Your task to perform on an android device: Open wifi settings Image 0: 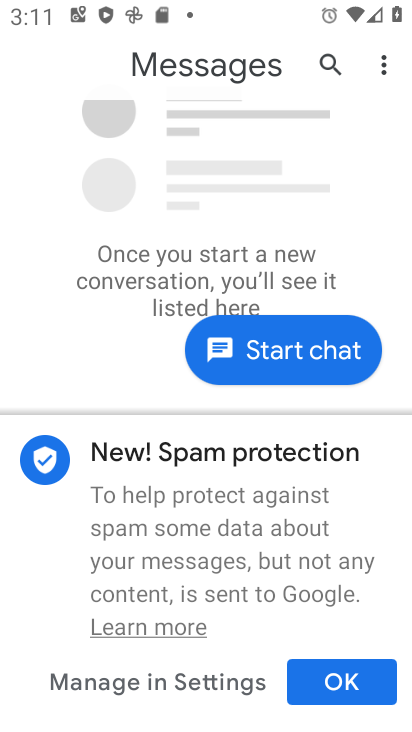
Step 0: press home button
Your task to perform on an android device: Open wifi settings Image 1: 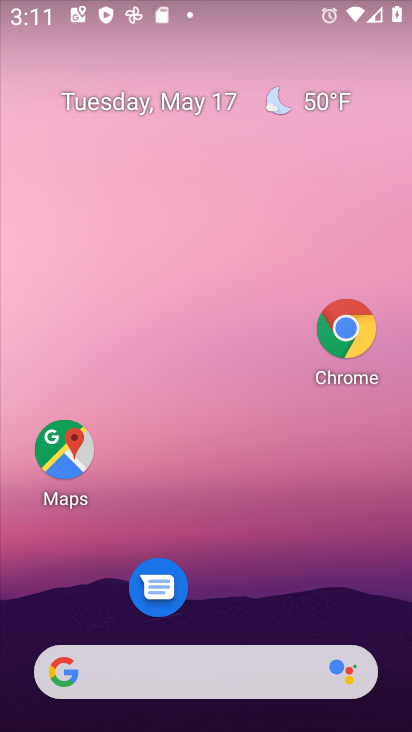
Step 1: drag from (287, 608) to (130, 18)
Your task to perform on an android device: Open wifi settings Image 2: 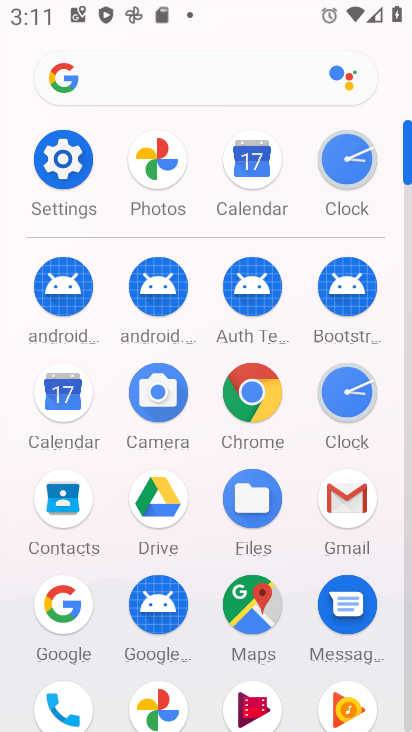
Step 2: click (77, 190)
Your task to perform on an android device: Open wifi settings Image 3: 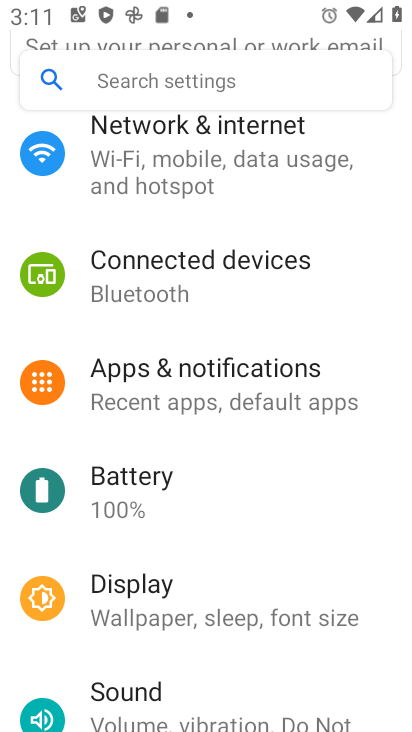
Step 3: click (135, 186)
Your task to perform on an android device: Open wifi settings Image 4: 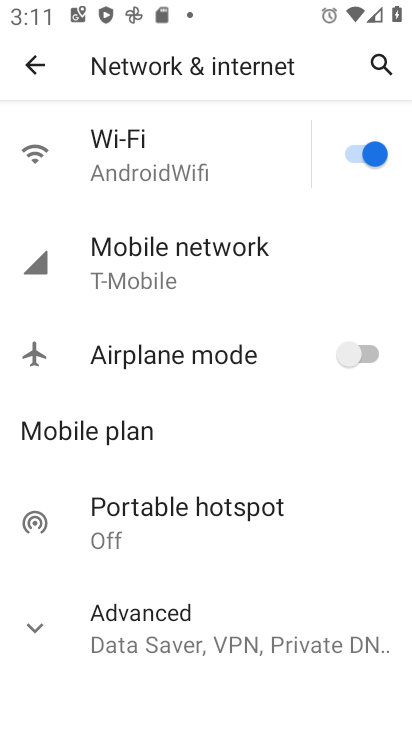
Step 4: click (182, 177)
Your task to perform on an android device: Open wifi settings Image 5: 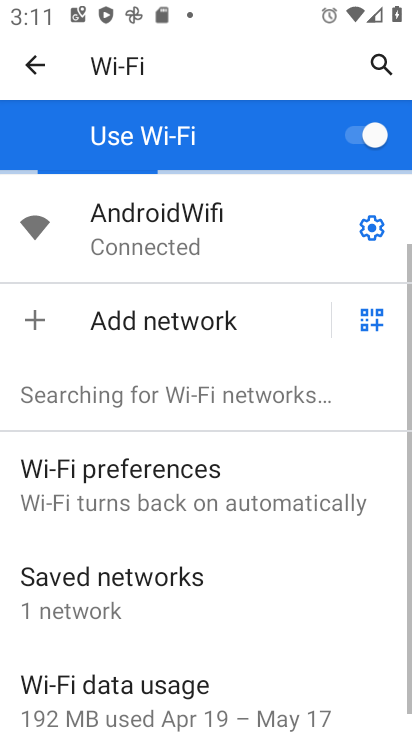
Step 5: task complete